Your task to perform on an android device: remove spam from my inbox in the gmail app Image 0: 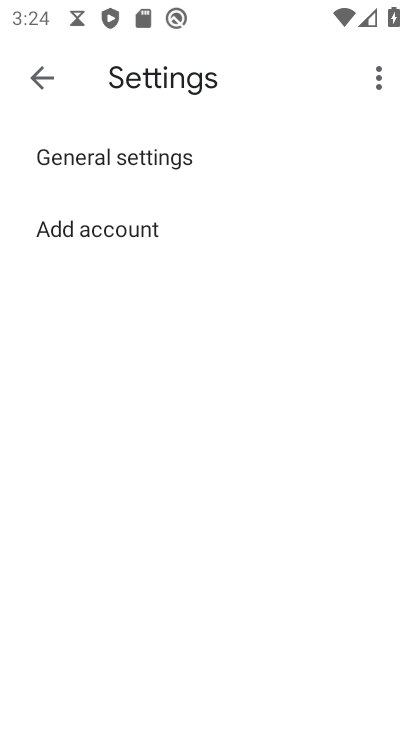
Step 0: press back button
Your task to perform on an android device: remove spam from my inbox in the gmail app Image 1: 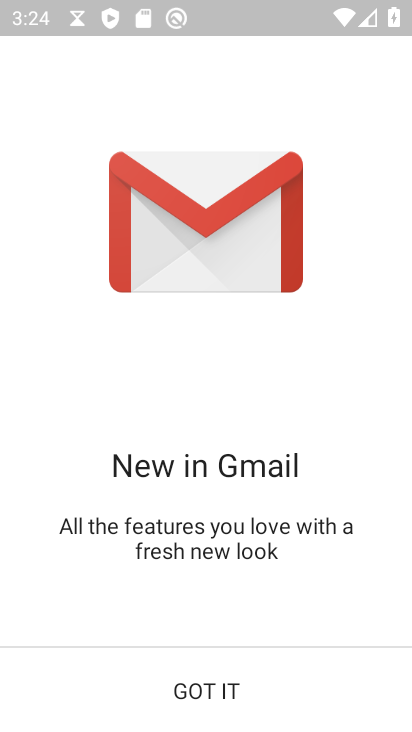
Step 1: click (145, 701)
Your task to perform on an android device: remove spam from my inbox in the gmail app Image 2: 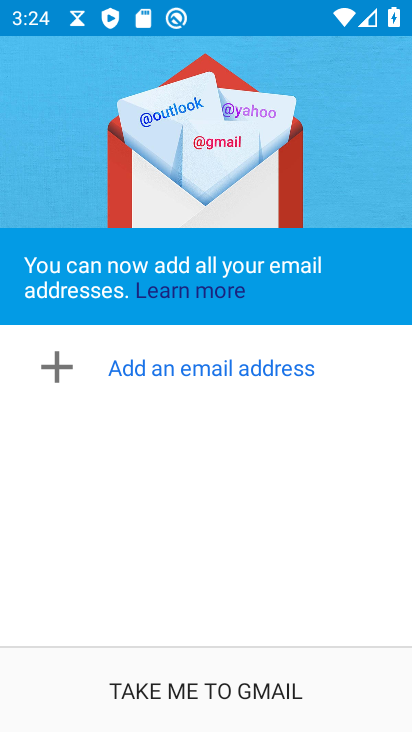
Step 2: click (157, 721)
Your task to perform on an android device: remove spam from my inbox in the gmail app Image 3: 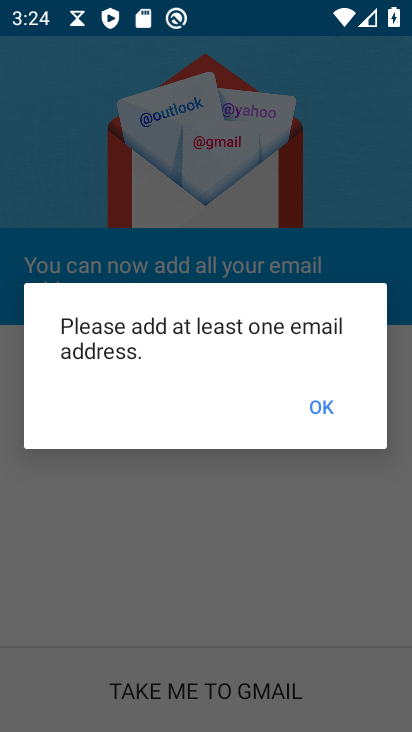
Step 3: click (319, 427)
Your task to perform on an android device: remove spam from my inbox in the gmail app Image 4: 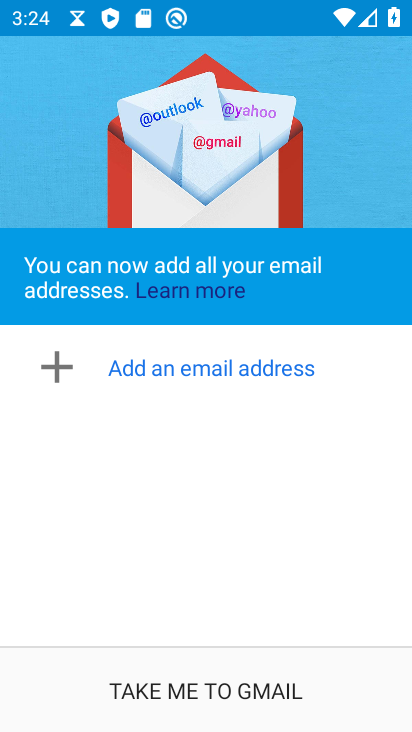
Step 4: task complete